Your task to perform on an android device: Search for pizza restaurants on Maps Image 0: 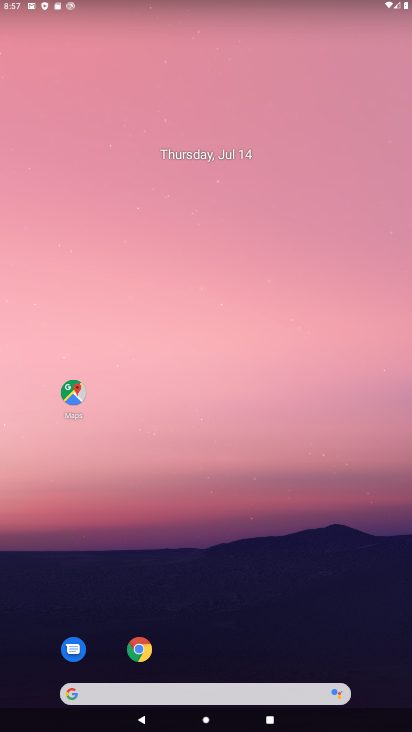
Step 0: click (68, 395)
Your task to perform on an android device: Search for pizza restaurants on Maps Image 1: 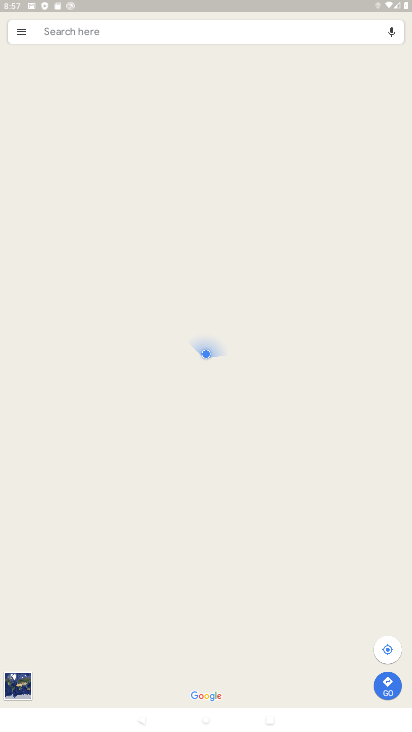
Step 1: click (242, 39)
Your task to perform on an android device: Search for pizza restaurants on Maps Image 2: 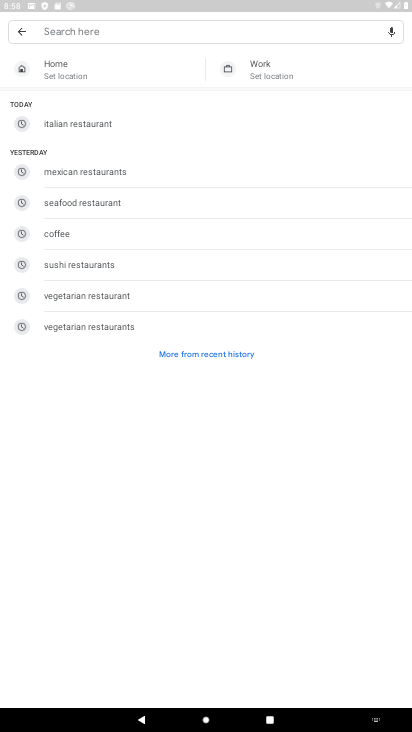
Step 2: type "pizza restaurants"
Your task to perform on an android device: Search for pizza restaurants on Maps Image 3: 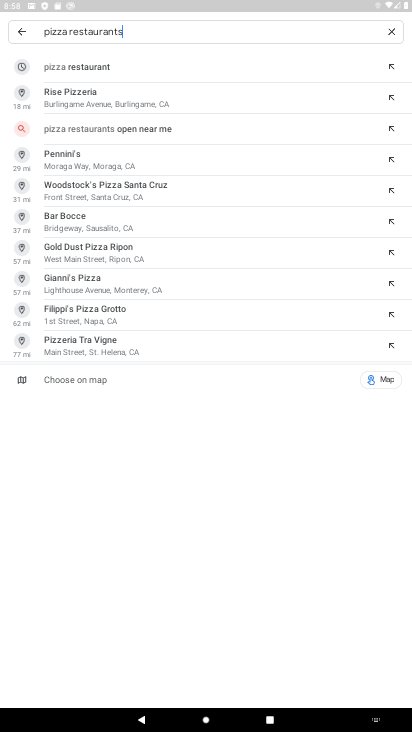
Step 3: click (88, 65)
Your task to perform on an android device: Search for pizza restaurants on Maps Image 4: 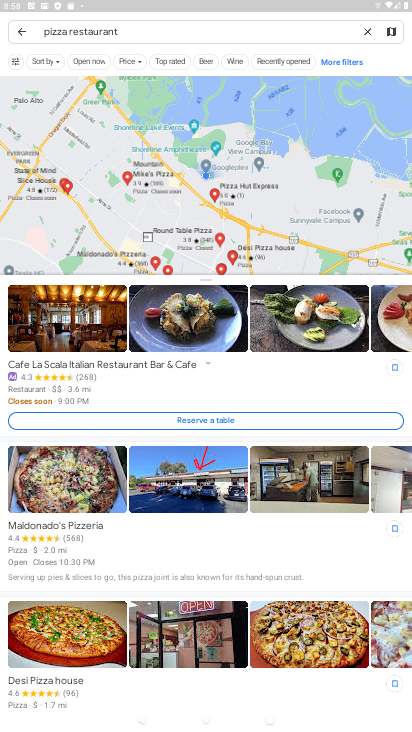
Step 4: task complete